Your task to perform on an android device: Check the weather Image 0: 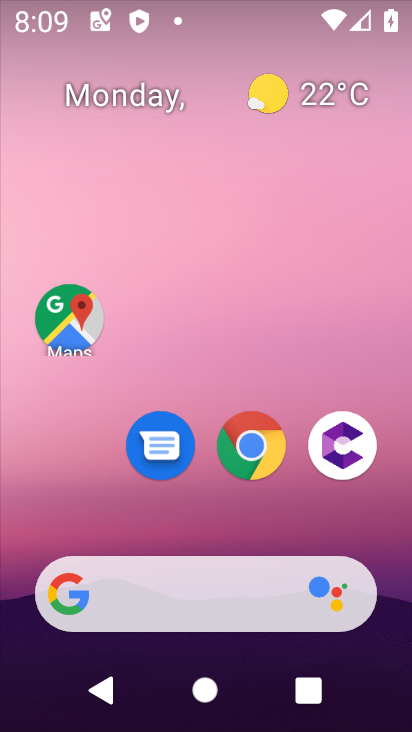
Step 0: press home button
Your task to perform on an android device: Check the weather Image 1: 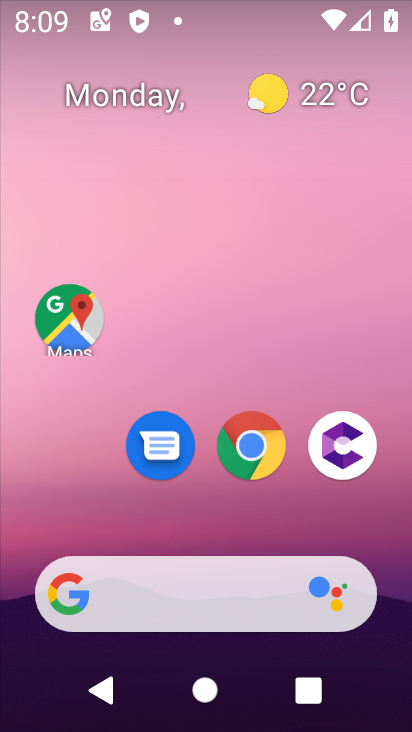
Step 1: click (55, 592)
Your task to perform on an android device: Check the weather Image 2: 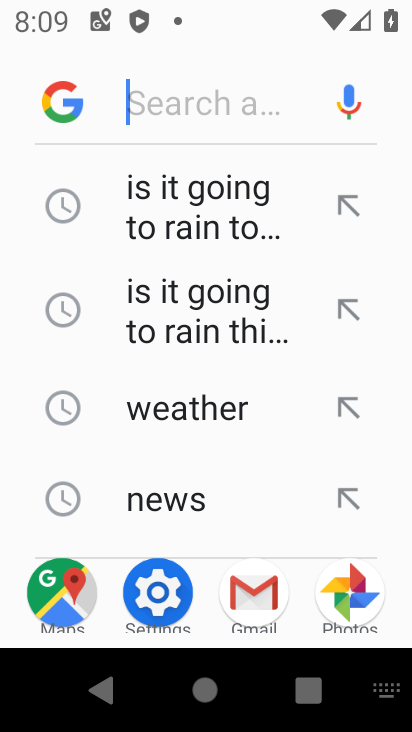
Step 2: click (188, 417)
Your task to perform on an android device: Check the weather Image 3: 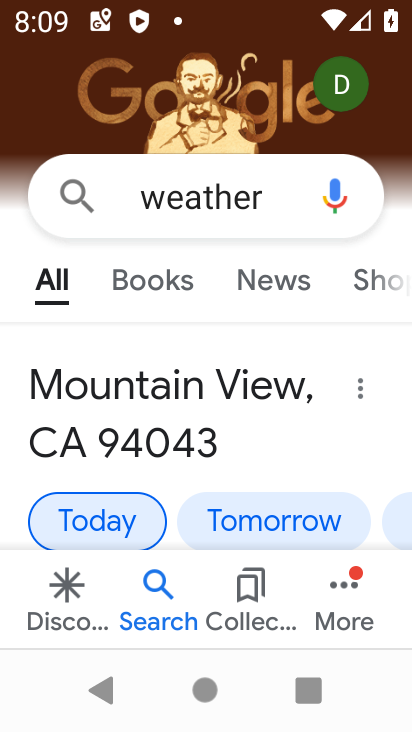
Step 3: task complete